Your task to perform on an android device: turn on improve location accuracy Image 0: 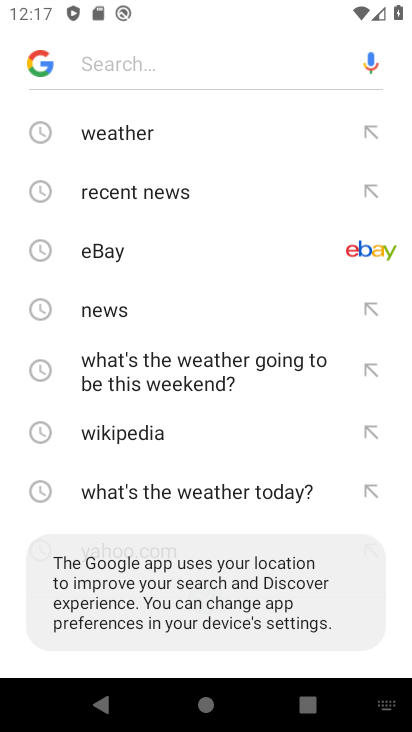
Step 0: press home button
Your task to perform on an android device: turn on improve location accuracy Image 1: 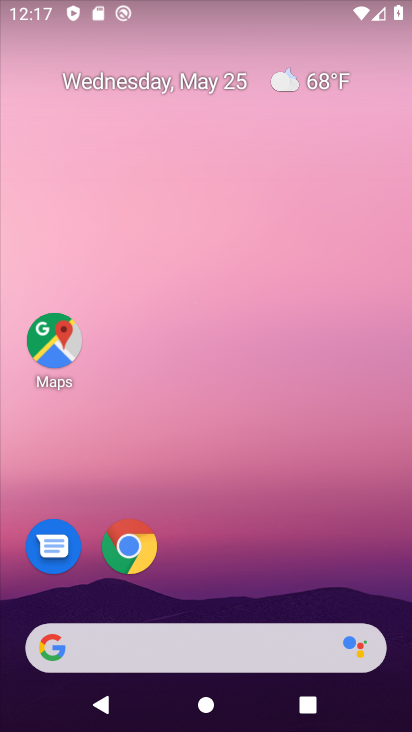
Step 1: drag from (237, 532) to (267, 109)
Your task to perform on an android device: turn on improve location accuracy Image 2: 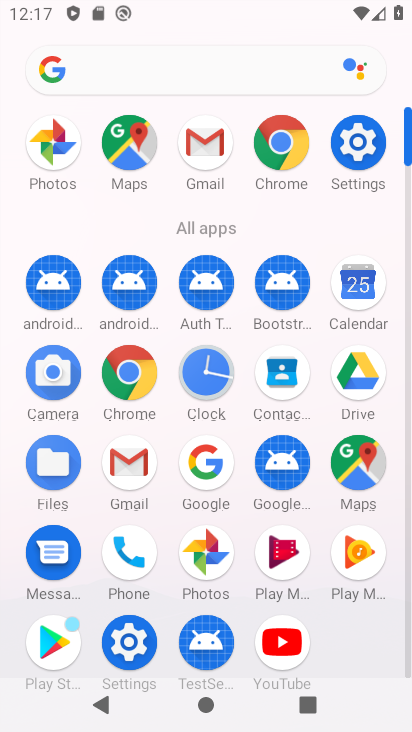
Step 2: click (356, 175)
Your task to perform on an android device: turn on improve location accuracy Image 3: 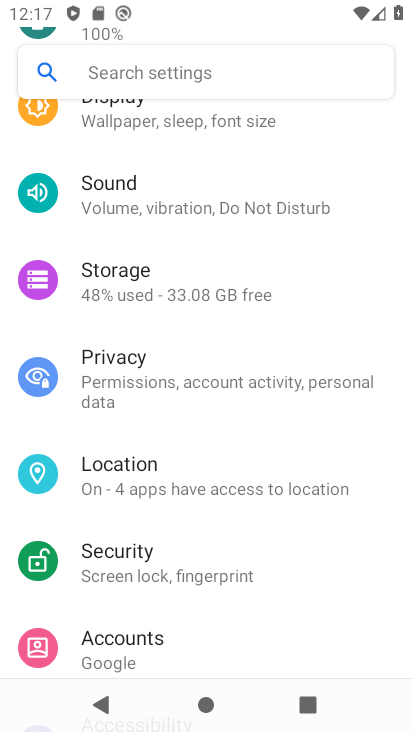
Step 3: click (222, 455)
Your task to perform on an android device: turn on improve location accuracy Image 4: 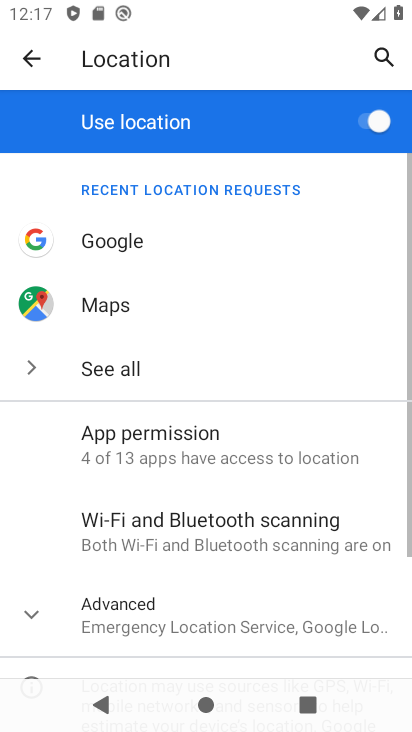
Step 4: click (176, 619)
Your task to perform on an android device: turn on improve location accuracy Image 5: 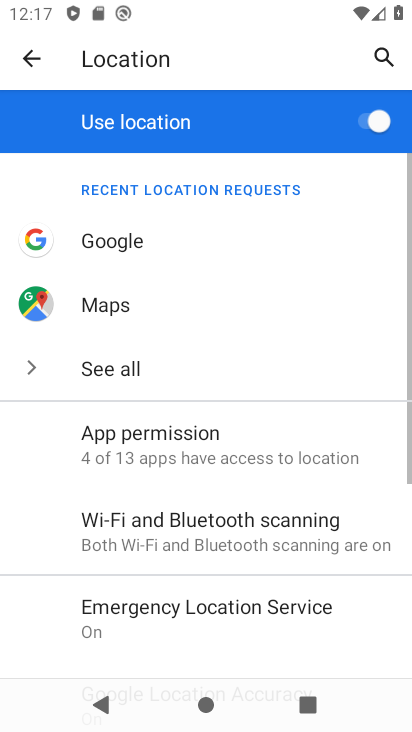
Step 5: drag from (239, 595) to (242, 210)
Your task to perform on an android device: turn on improve location accuracy Image 6: 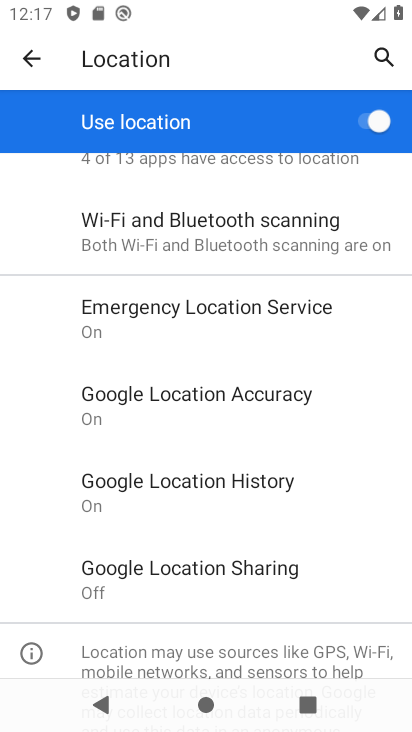
Step 6: click (302, 402)
Your task to perform on an android device: turn on improve location accuracy Image 7: 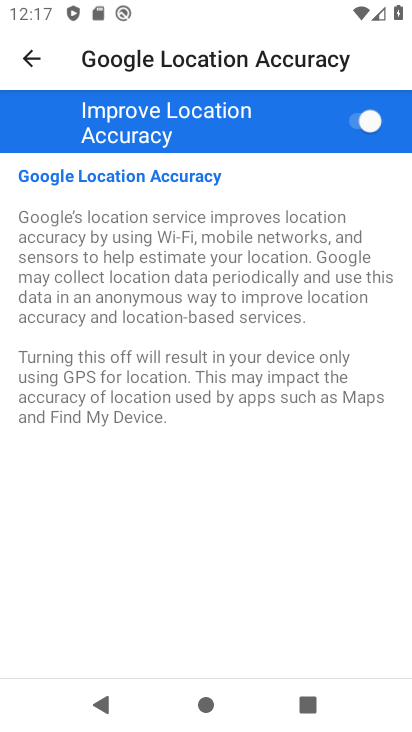
Step 7: task complete